Your task to perform on an android device: set an alarm Image 0: 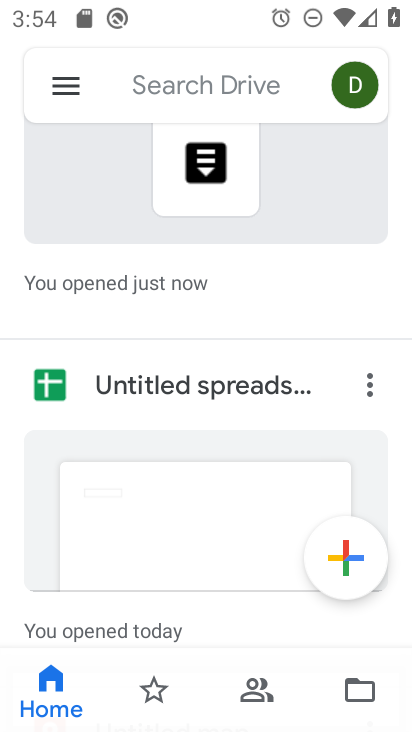
Step 0: drag from (249, 559) to (240, 162)
Your task to perform on an android device: set an alarm Image 1: 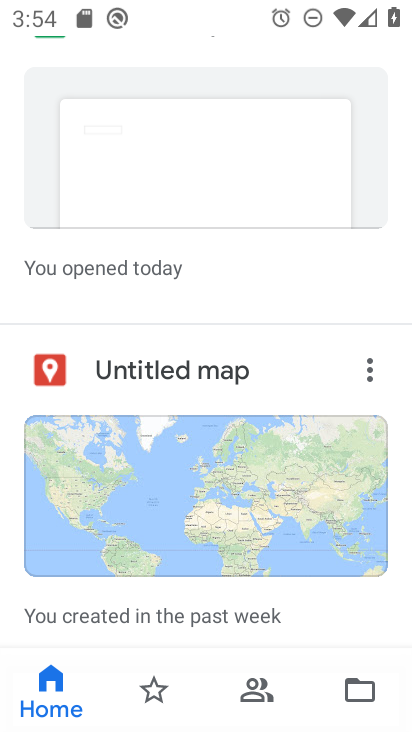
Step 1: drag from (143, 619) to (252, 76)
Your task to perform on an android device: set an alarm Image 2: 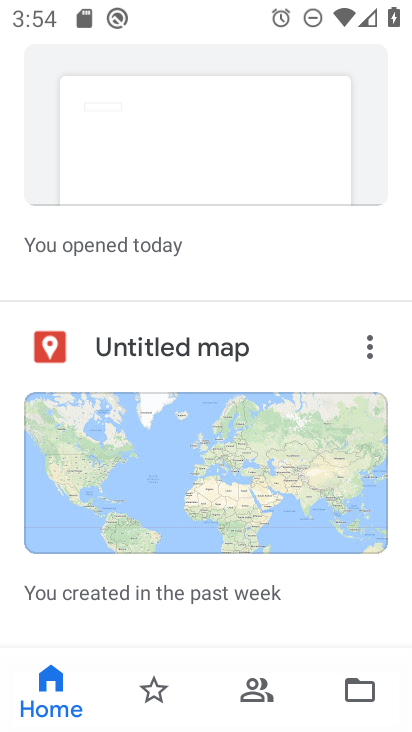
Step 2: drag from (134, 594) to (323, 279)
Your task to perform on an android device: set an alarm Image 3: 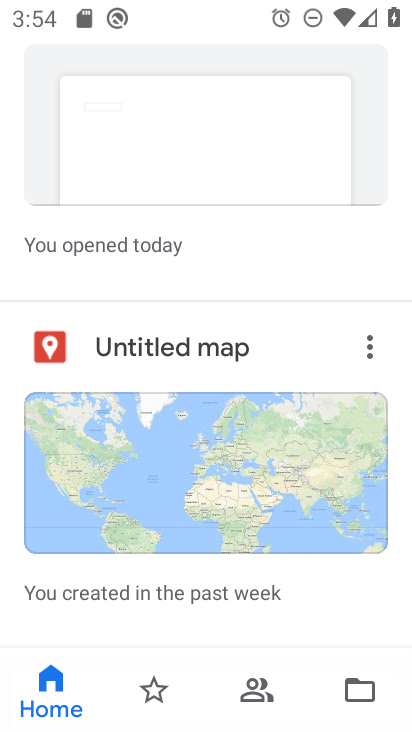
Step 3: drag from (202, 191) to (387, 677)
Your task to perform on an android device: set an alarm Image 4: 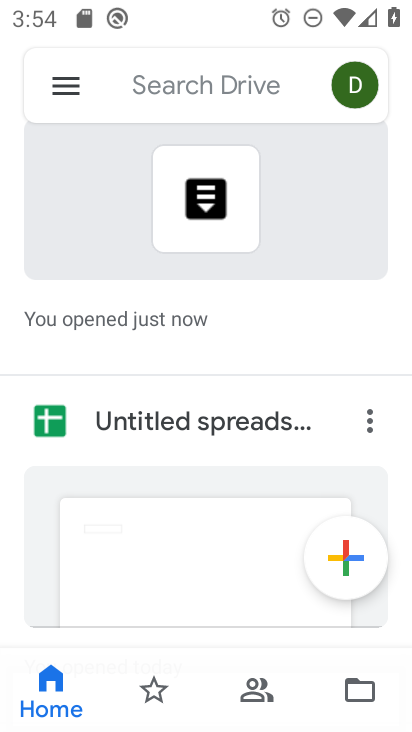
Step 4: drag from (209, 257) to (332, 683)
Your task to perform on an android device: set an alarm Image 5: 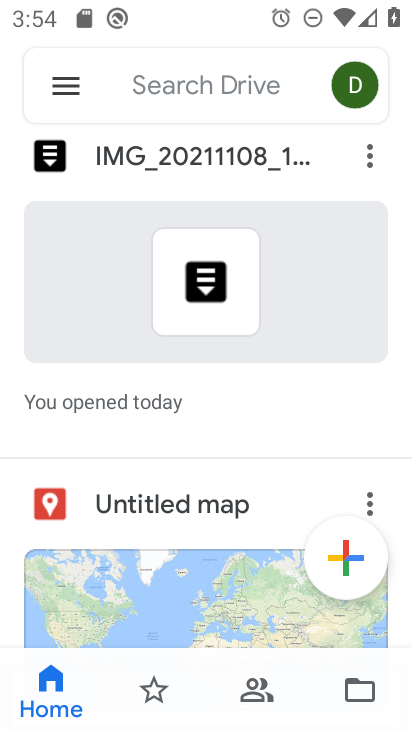
Step 5: press home button
Your task to perform on an android device: set an alarm Image 6: 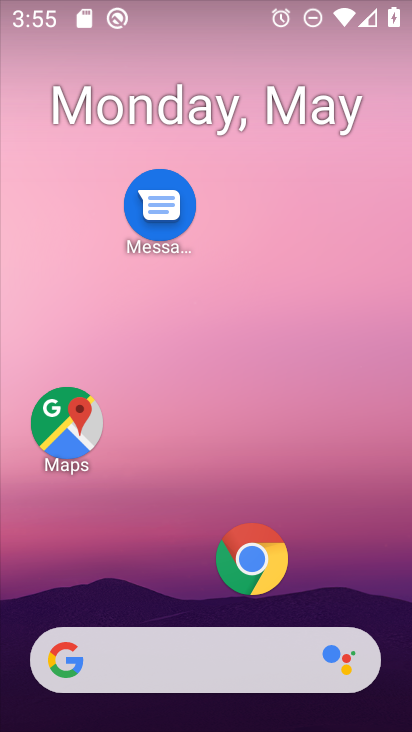
Step 6: drag from (190, 609) to (223, 94)
Your task to perform on an android device: set an alarm Image 7: 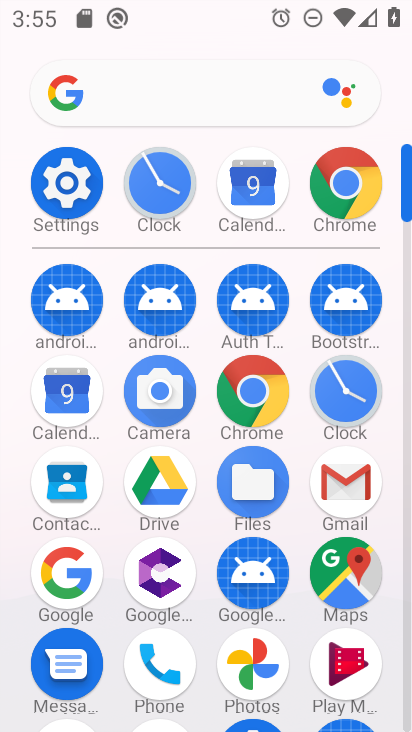
Step 7: click (337, 387)
Your task to perform on an android device: set an alarm Image 8: 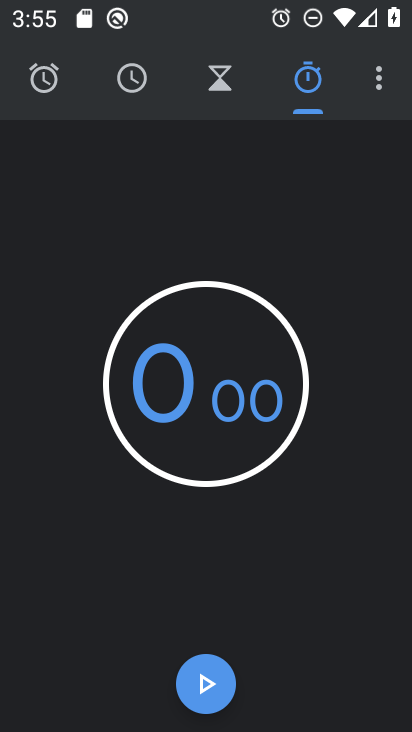
Step 8: click (237, 81)
Your task to perform on an android device: set an alarm Image 9: 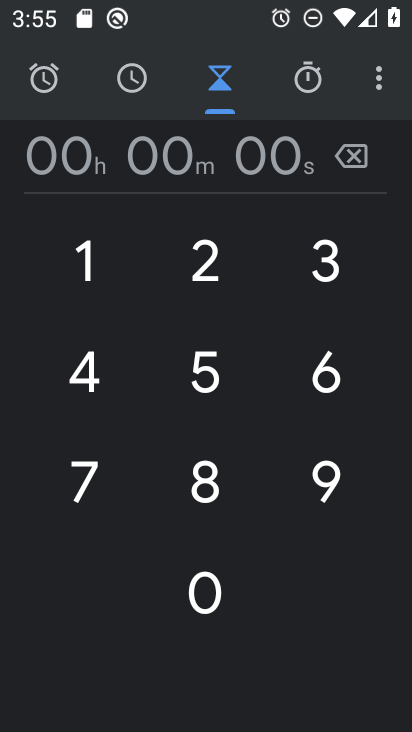
Step 9: click (318, 87)
Your task to perform on an android device: set an alarm Image 10: 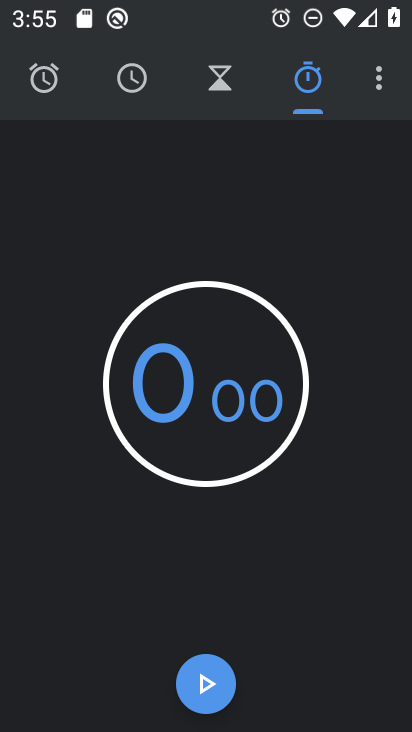
Step 10: click (382, 73)
Your task to perform on an android device: set an alarm Image 11: 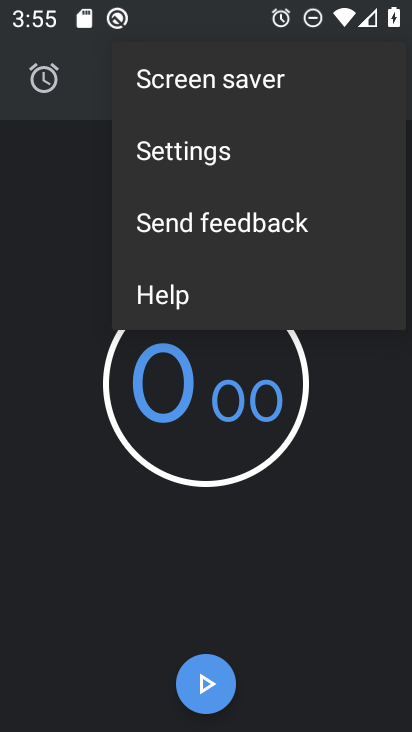
Step 11: click (38, 258)
Your task to perform on an android device: set an alarm Image 12: 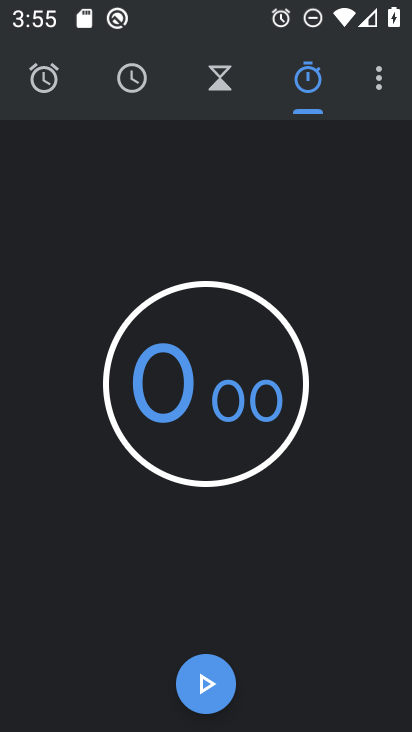
Step 12: click (45, 82)
Your task to perform on an android device: set an alarm Image 13: 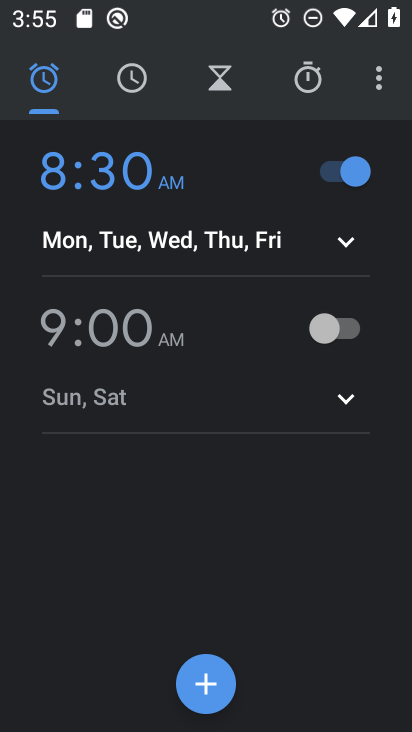
Step 13: click (340, 328)
Your task to perform on an android device: set an alarm Image 14: 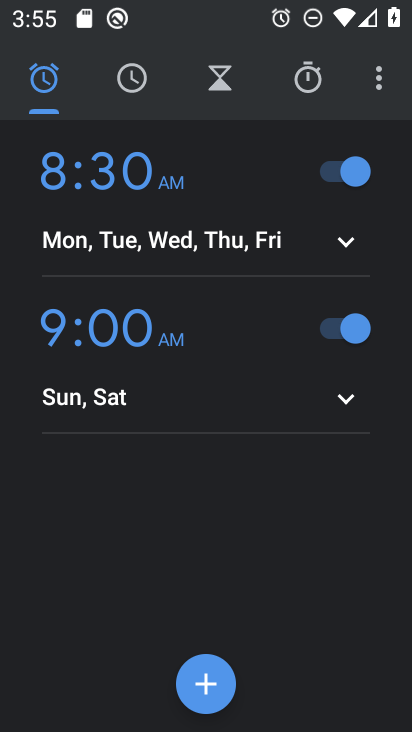
Step 14: task complete